Your task to perform on an android device: Set the phone to "Do not disturb". Image 0: 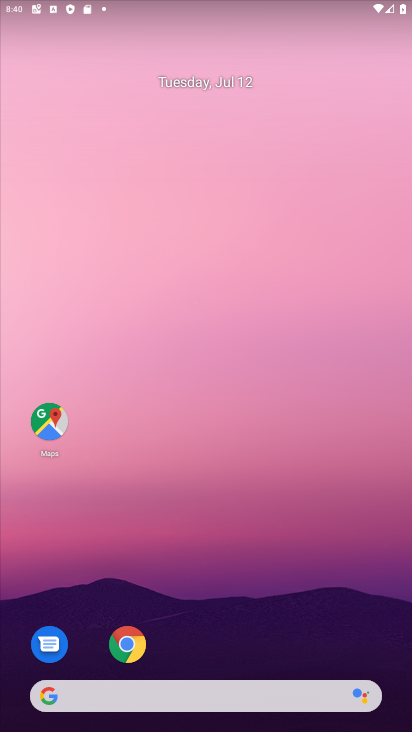
Step 0: drag from (356, 639) to (258, 108)
Your task to perform on an android device: Set the phone to "Do not disturb". Image 1: 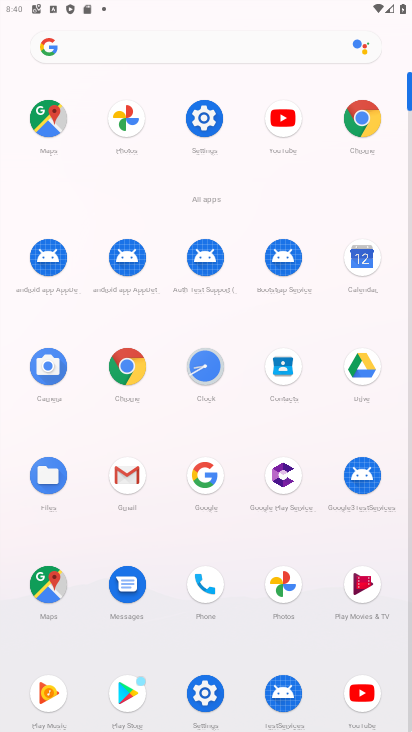
Step 1: click (205, 694)
Your task to perform on an android device: Set the phone to "Do not disturb". Image 2: 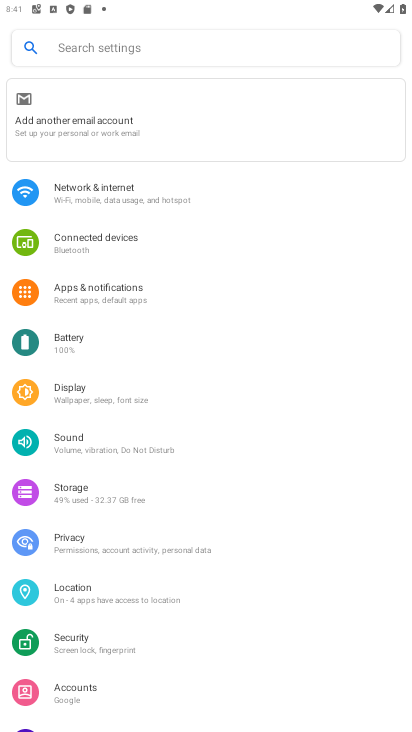
Step 2: click (79, 442)
Your task to perform on an android device: Set the phone to "Do not disturb". Image 3: 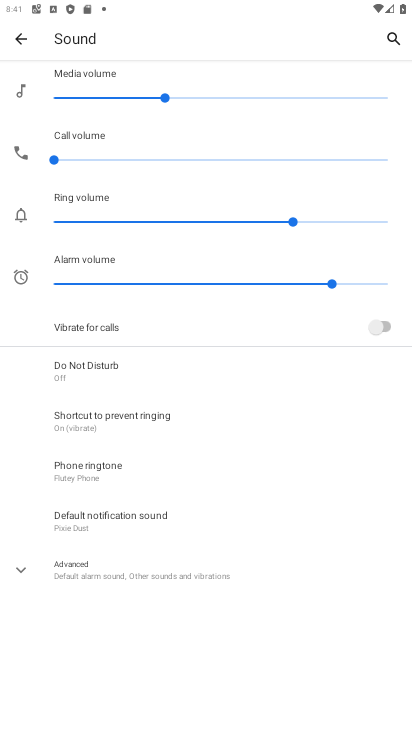
Step 3: click (26, 568)
Your task to perform on an android device: Set the phone to "Do not disturb". Image 4: 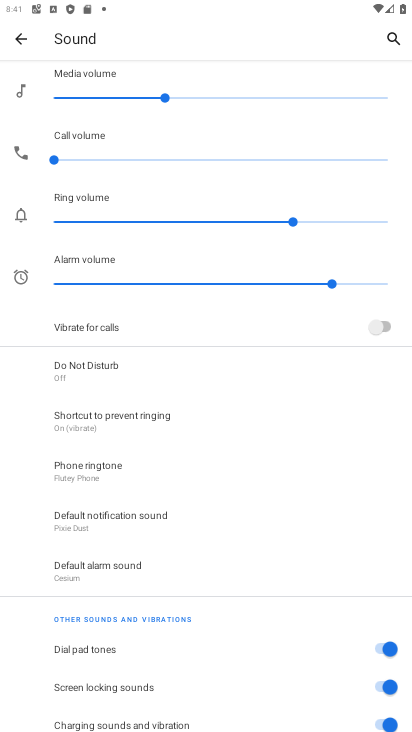
Step 4: click (84, 369)
Your task to perform on an android device: Set the phone to "Do not disturb". Image 5: 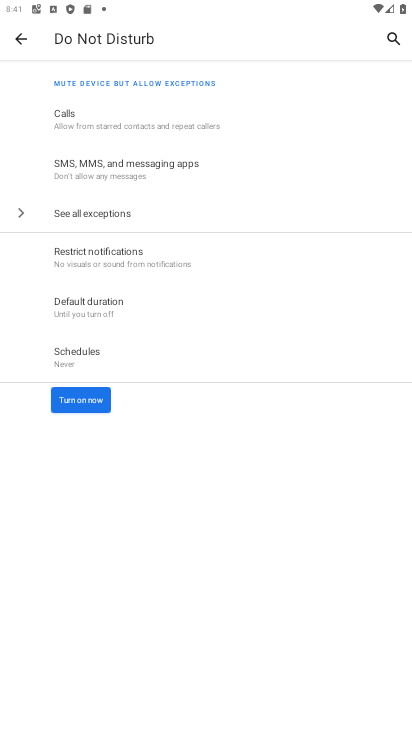
Step 5: click (78, 392)
Your task to perform on an android device: Set the phone to "Do not disturb". Image 6: 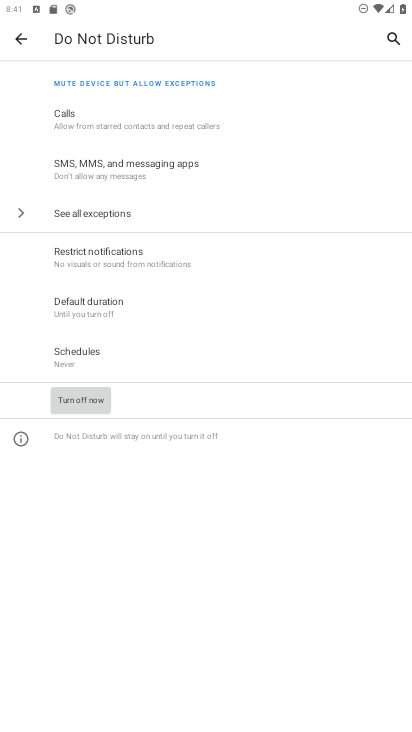
Step 6: task complete